Your task to perform on an android device: move a message to another label in the gmail app Image 0: 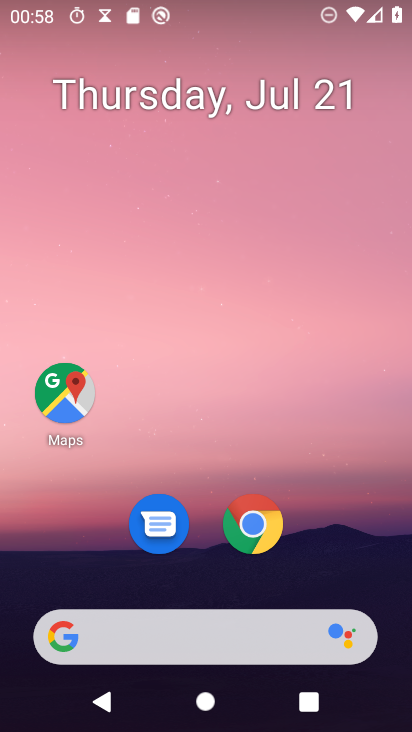
Step 0: drag from (174, 643) to (264, 88)
Your task to perform on an android device: move a message to another label in the gmail app Image 1: 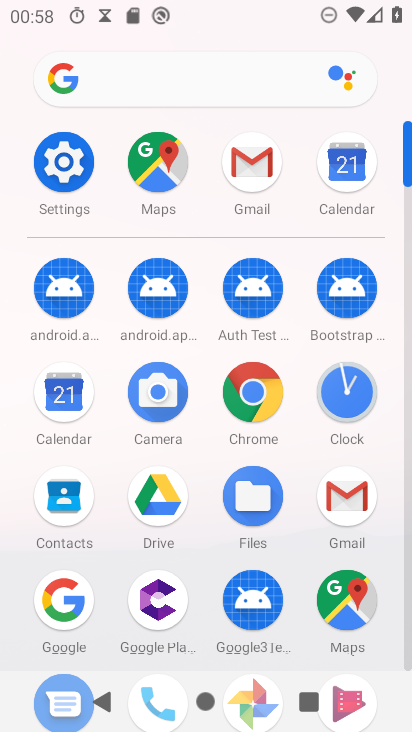
Step 1: click (262, 156)
Your task to perform on an android device: move a message to another label in the gmail app Image 2: 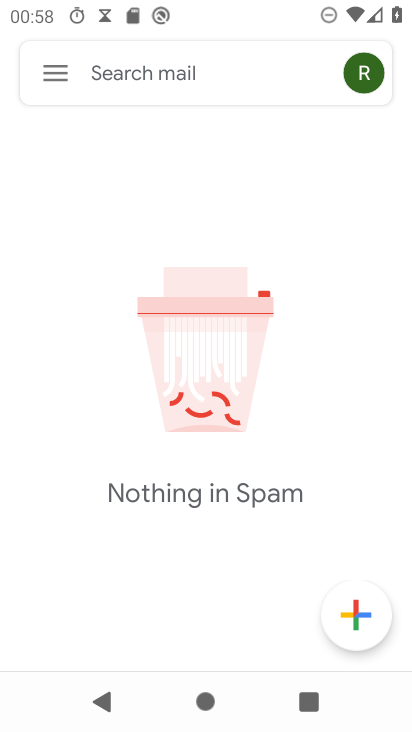
Step 2: click (64, 72)
Your task to perform on an android device: move a message to another label in the gmail app Image 3: 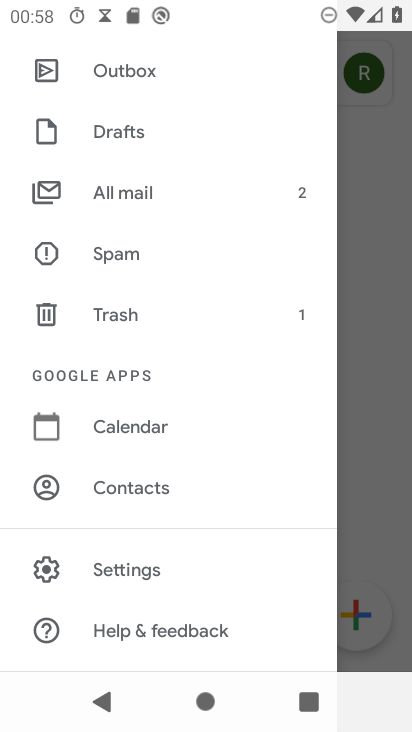
Step 3: click (134, 191)
Your task to perform on an android device: move a message to another label in the gmail app Image 4: 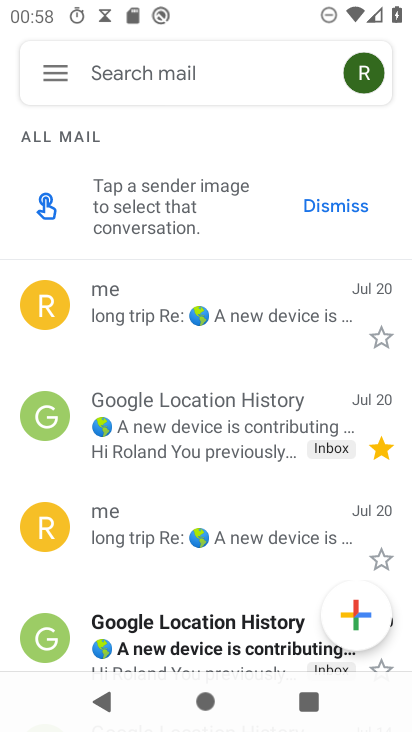
Step 4: click (57, 80)
Your task to perform on an android device: move a message to another label in the gmail app Image 5: 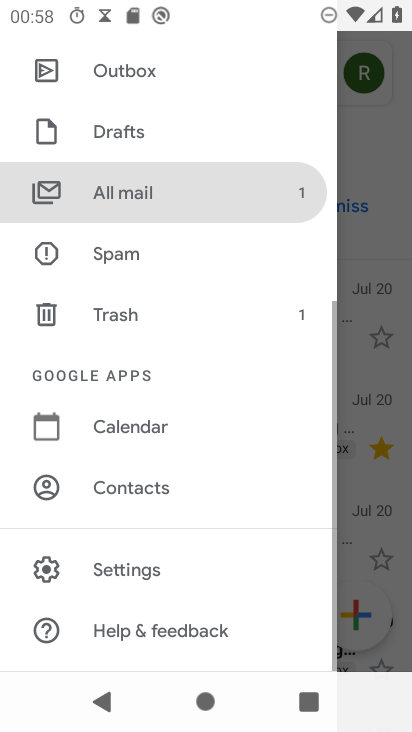
Step 5: drag from (252, 134) to (201, 594)
Your task to perform on an android device: move a message to another label in the gmail app Image 6: 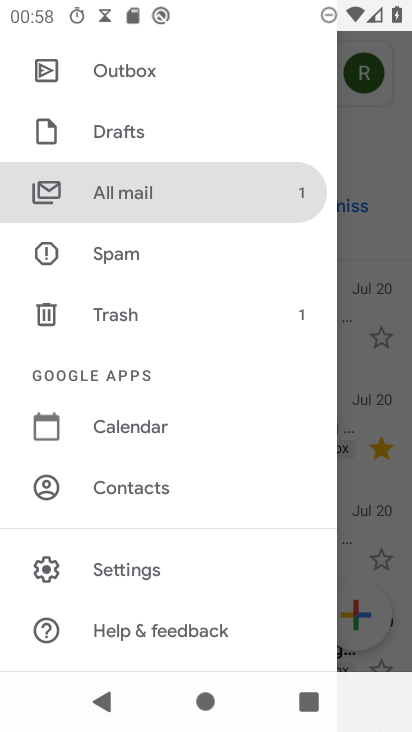
Step 6: drag from (172, 134) to (163, 535)
Your task to perform on an android device: move a message to another label in the gmail app Image 7: 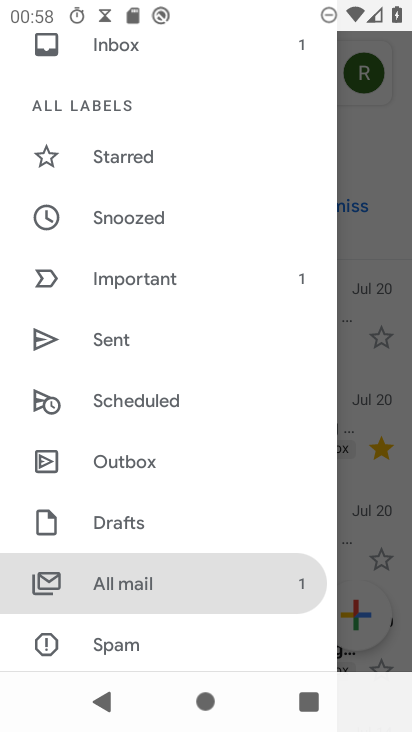
Step 7: click (192, 280)
Your task to perform on an android device: move a message to another label in the gmail app Image 8: 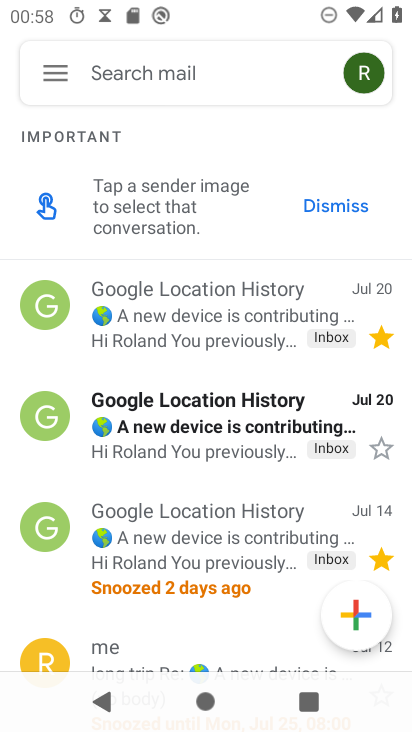
Step 8: drag from (226, 631) to (279, 242)
Your task to perform on an android device: move a message to another label in the gmail app Image 9: 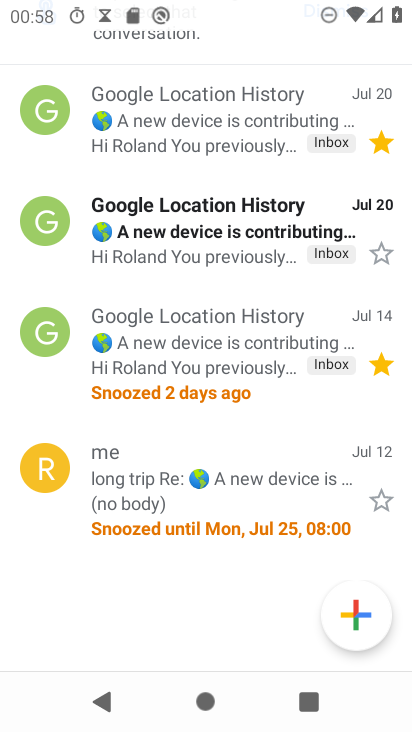
Step 9: click (196, 516)
Your task to perform on an android device: move a message to another label in the gmail app Image 10: 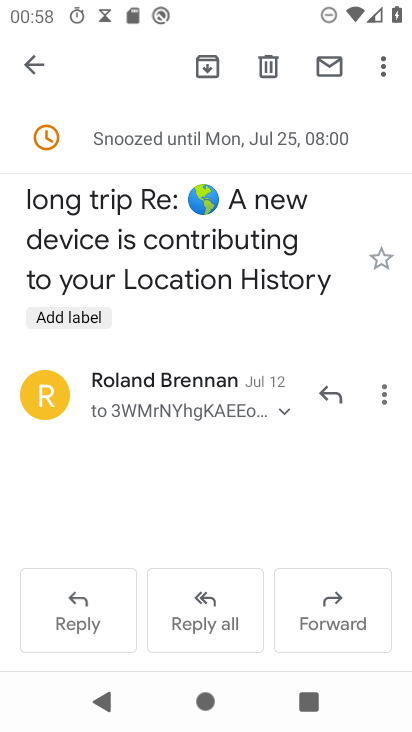
Step 10: click (88, 313)
Your task to perform on an android device: move a message to another label in the gmail app Image 11: 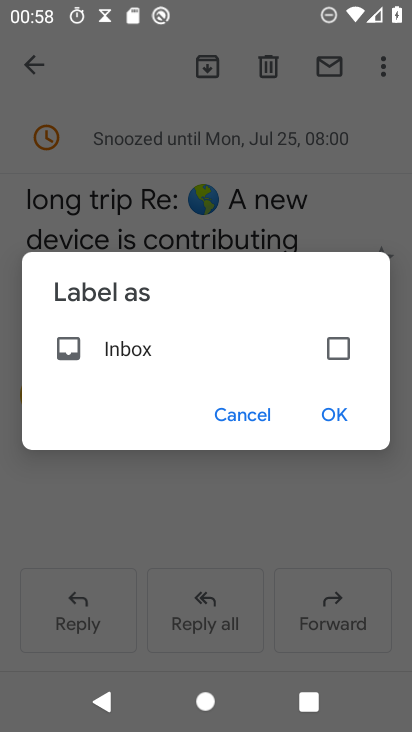
Step 11: click (338, 415)
Your task to perform on an android device: move a message to another label in the gmail app Image 12: 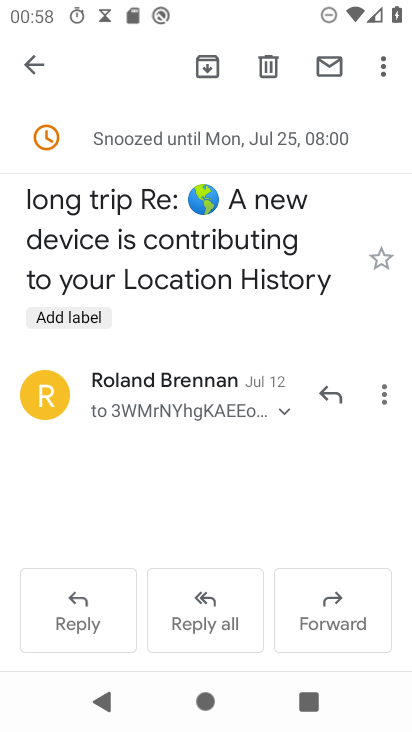
Step 12: click (95, 316)
Your task to perform on an android device: move a message to another label in the gmail app Image 13: 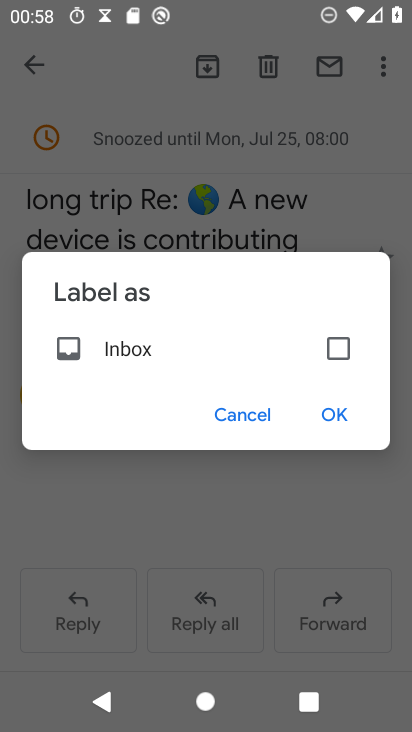
Step 13: click (336, 354)
Your task to perform on an android device: move a message to another label in the gmail app Image 14: 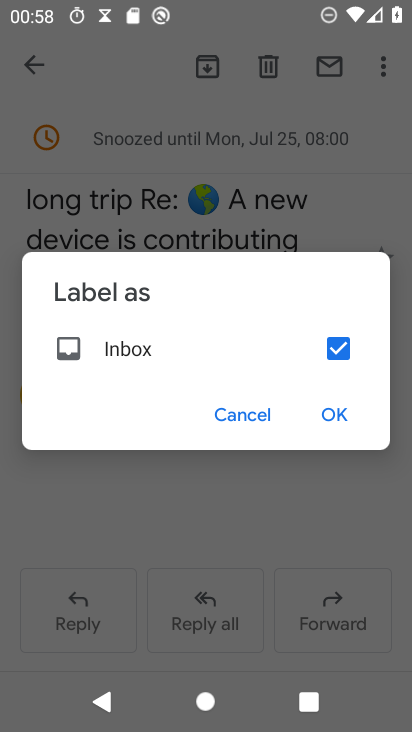
Step 14: click (334, 421)
Your task to perform on an android device: move a message to another label in the gmail app Image 15: 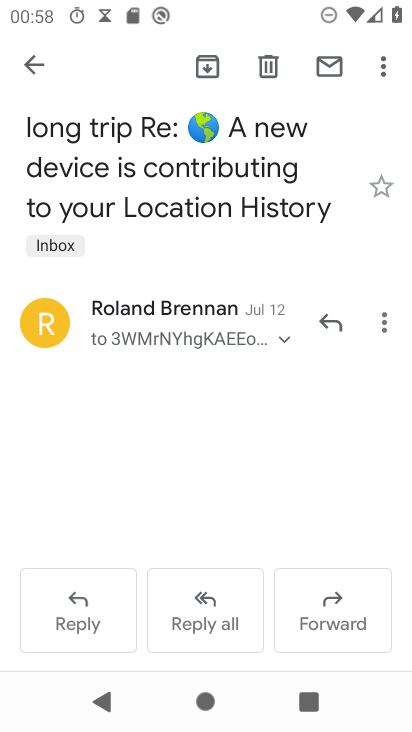
Step 15: task complete